Your task to perform on an android device: Search for a 3d printer on aliexpress Image 0: 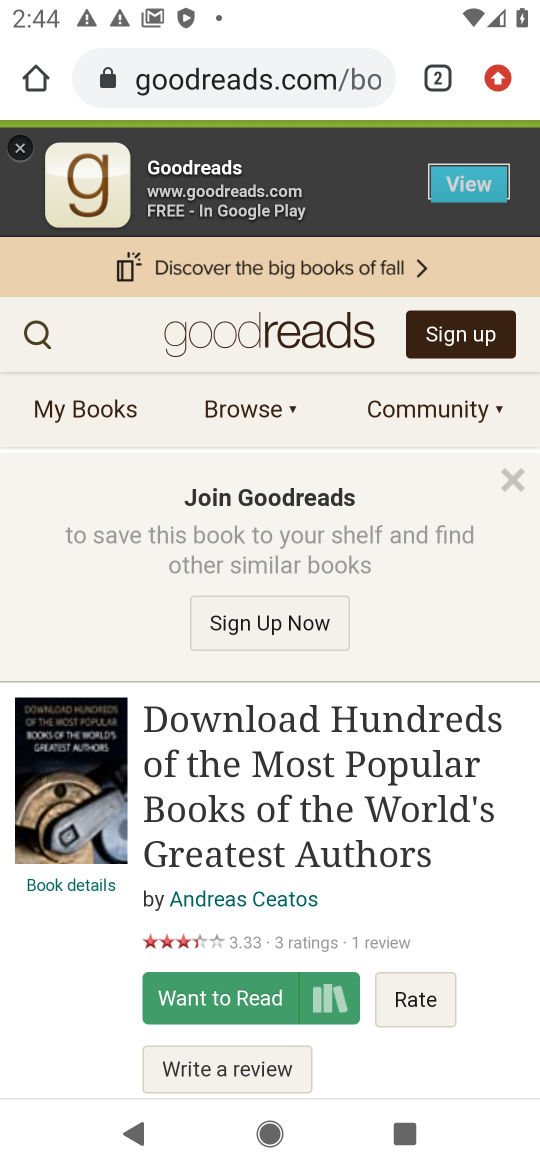
Step 0: press home button
Your task to perform on an android device: Search for a 3d printer on aliexpress Image 1: 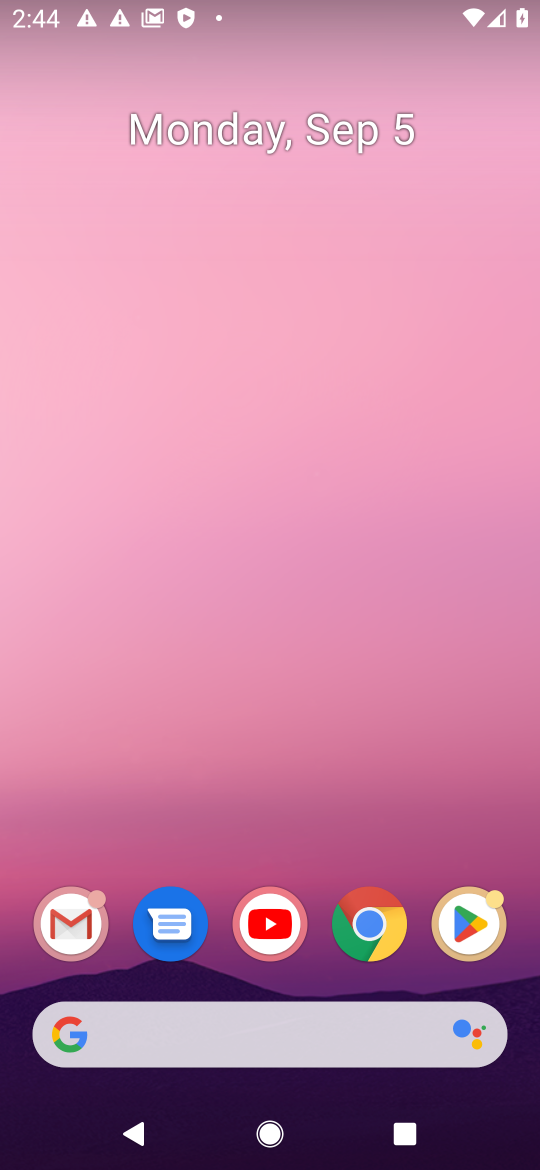
Step 1: drag from (338, 997) to (262, 118)
Your task to perform on an android device: Search for a 3d printer on aliexpress Image 2: 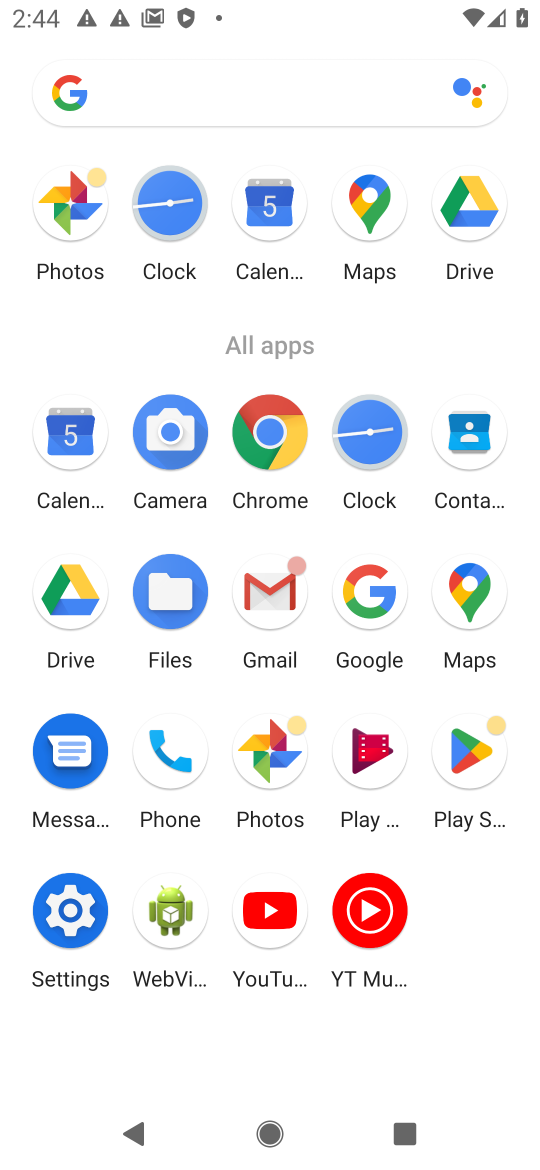
Step 2: click (267, 452)
Your task to perform on an android device: Search for a 3d printer on aliexpress Image 3: 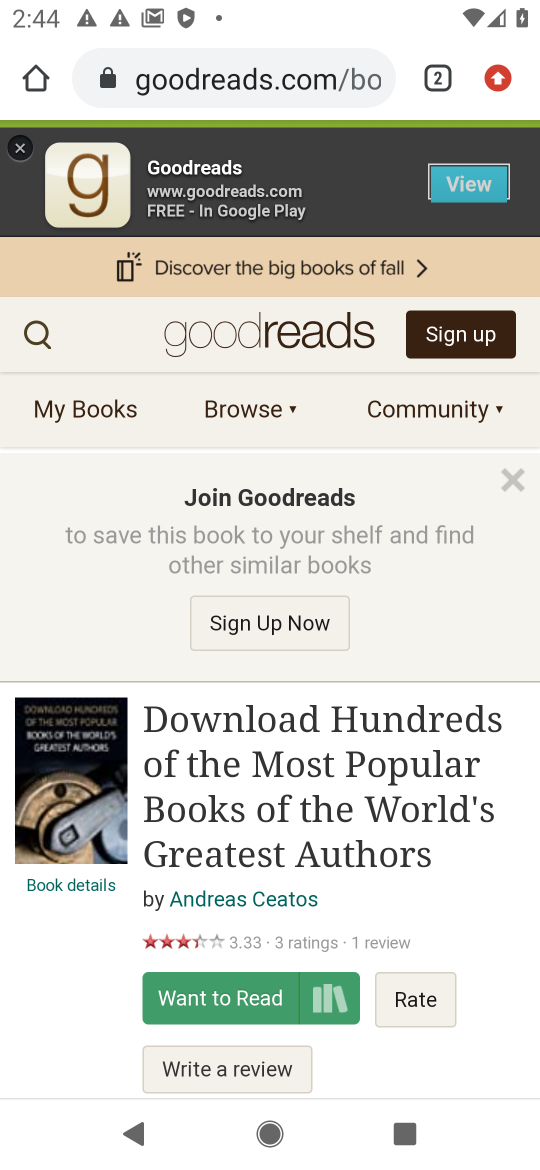
Step 3: click (236, 79)
Your task to perform on an android device: Search for a 3d printer on aliexpress Image 4: 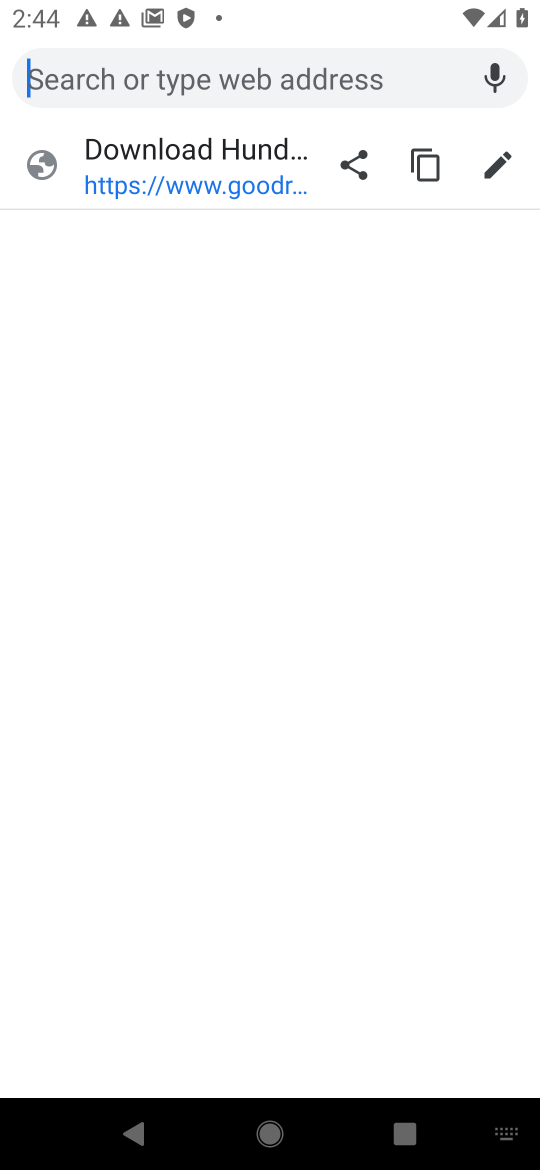
Step 4: type "aliexpress"
Your task to perform on an android device: Search for a 3d printer on aliexpress Image 5: 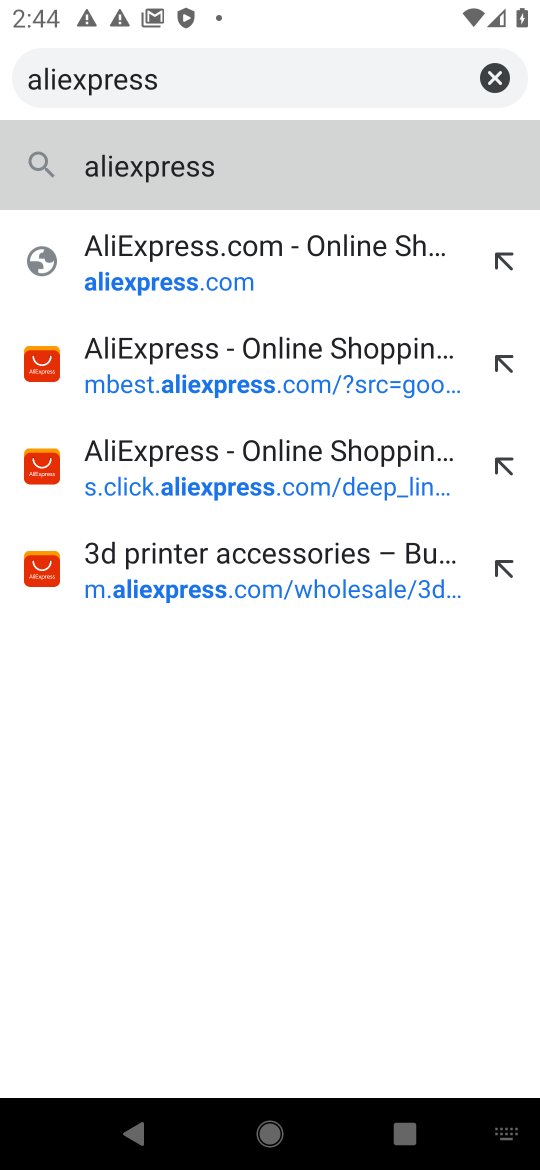
Step 5: type ""
Your task to perform on an android device: Search for a 3d printer on aliexpress Image 6: 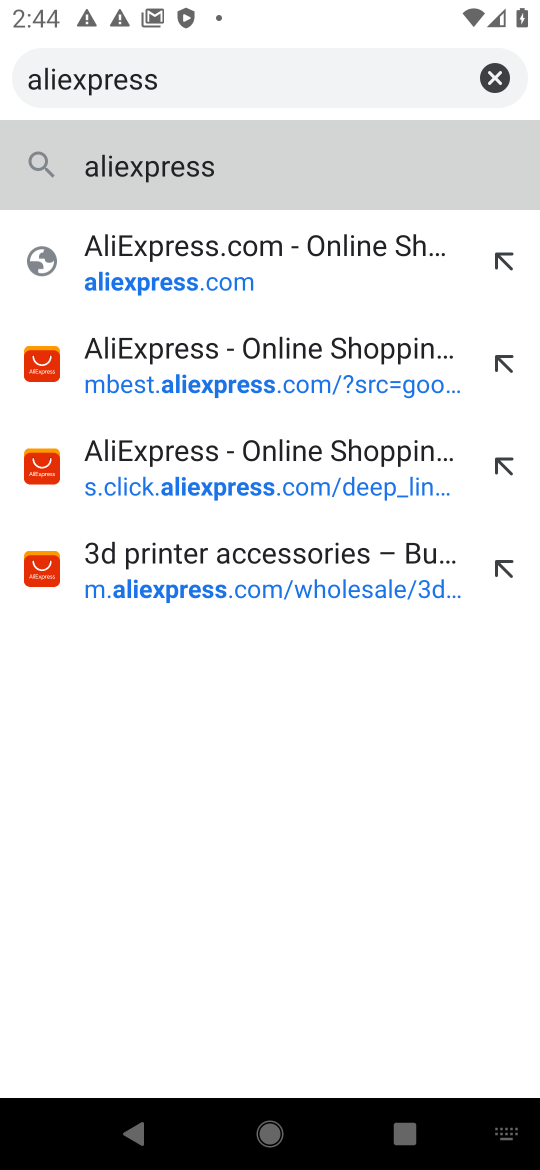
Step 6: click (138, 278)
Your task to perform on an android device: Search for a 3d printer on aliexpress Image 7: 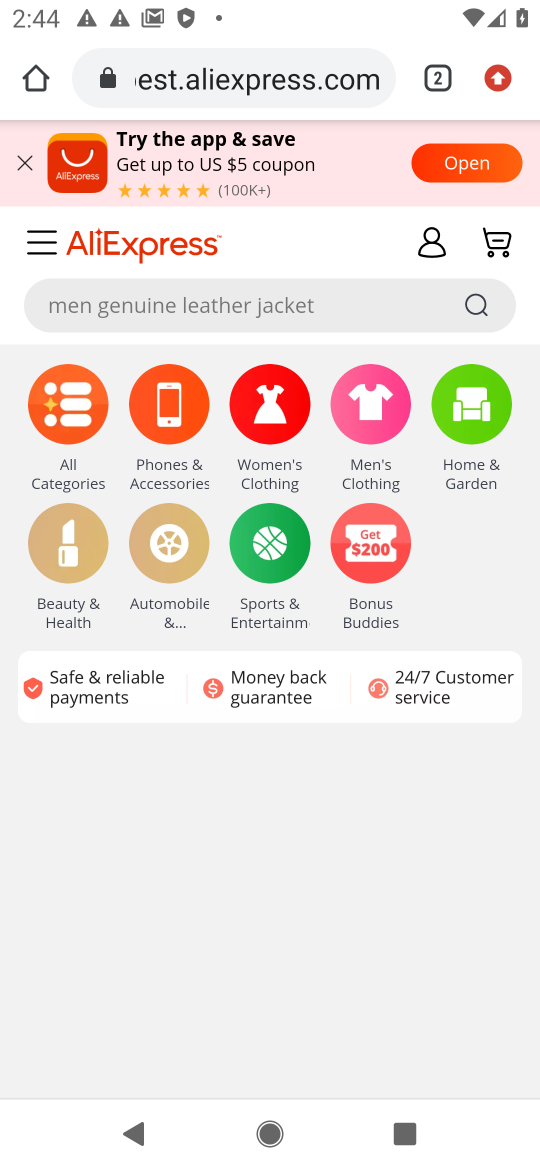
Step 7: click (187, 316)
Your task to perform on an android device: Search for a 3d printer on aliexpress Image 8: 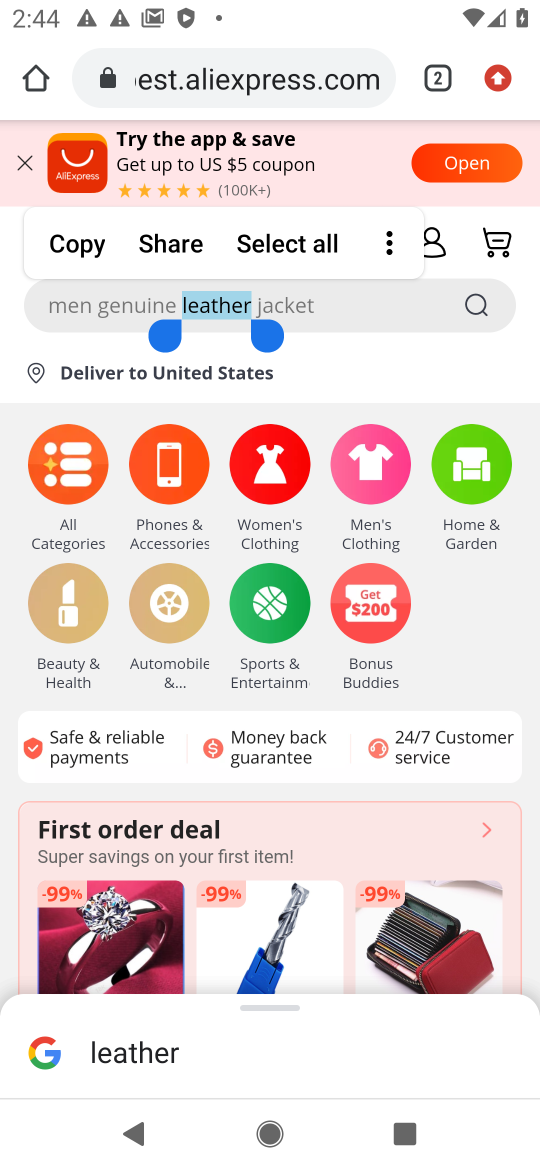
Step 8: click (333, 320)
Your task to perform on an android device: Search for a 3d printer on aliexpress Image 9: 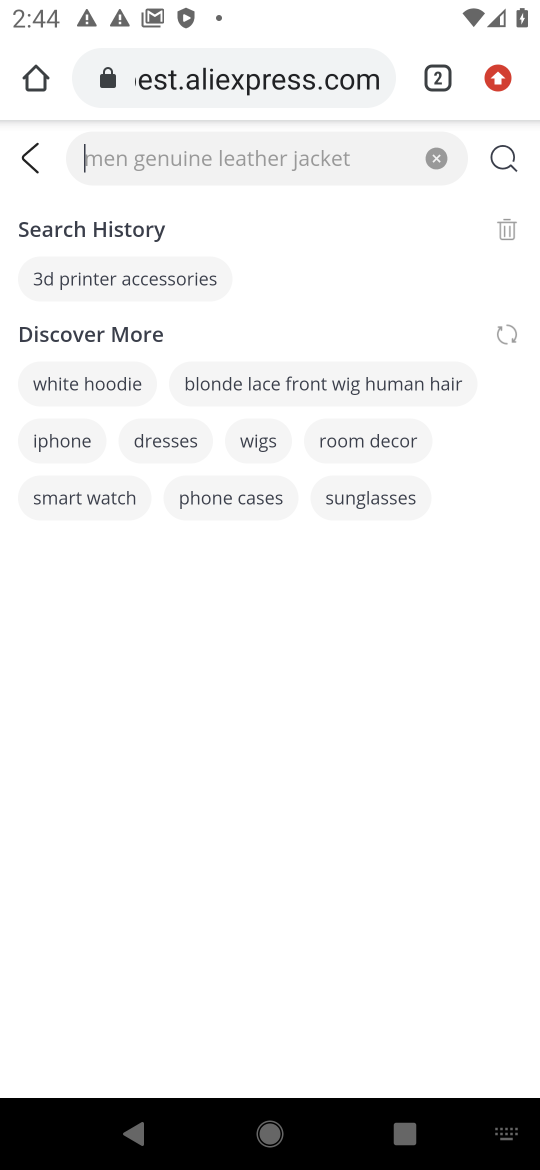
Step 9: type "a 3d printer"
Your task to perform on an android device: Search for a 3d printer on aliexpress Image 10: 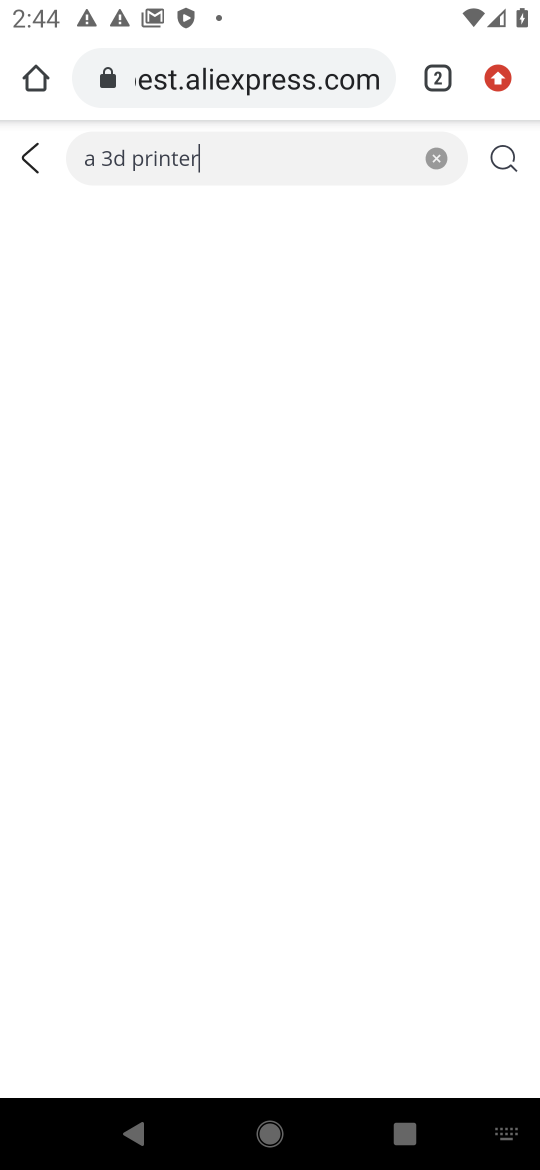
Step 10: type ""
Your task to perform on an android device: Search for a 3d printer on aliexpress Image 11: 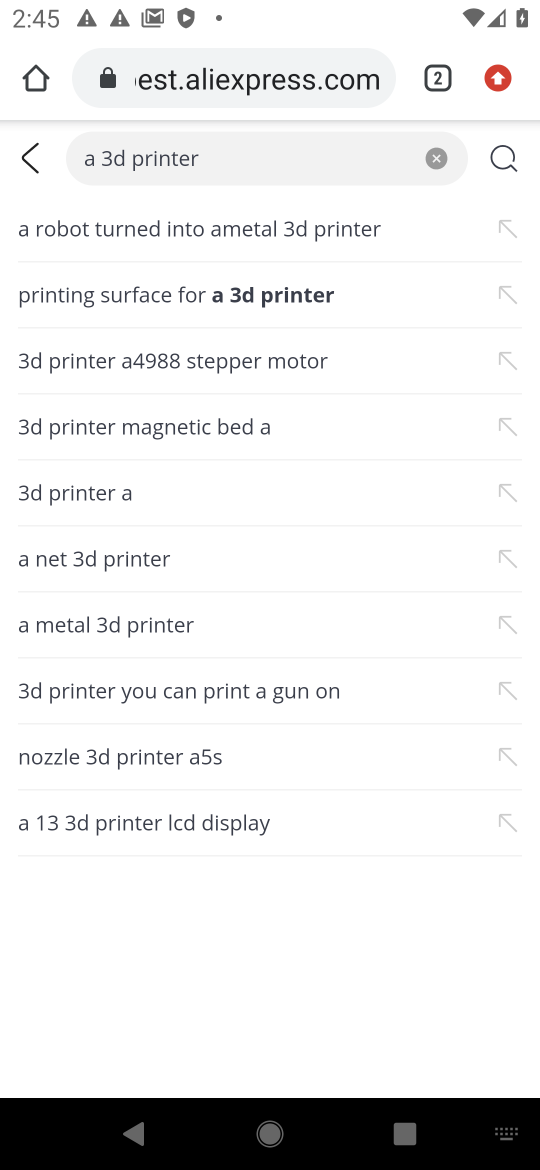
Step 11: click (114, 497)
Your task to perform on an android device: Search for a 3d printer on aliexpress Image 12: 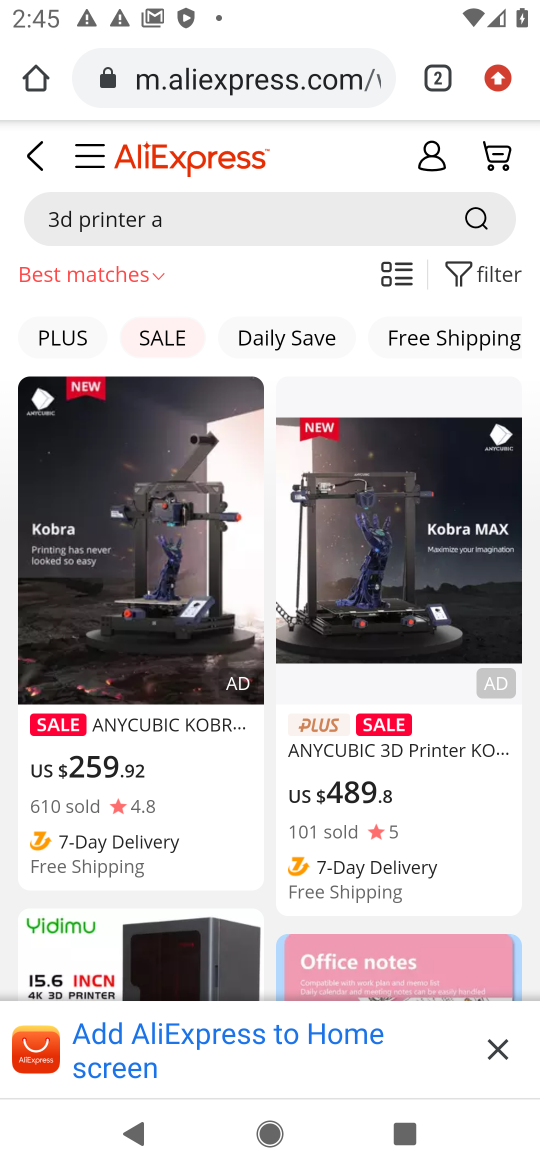
Step 12: task complete